Your task to perform on an android device: Do I have any events today? Image 0: 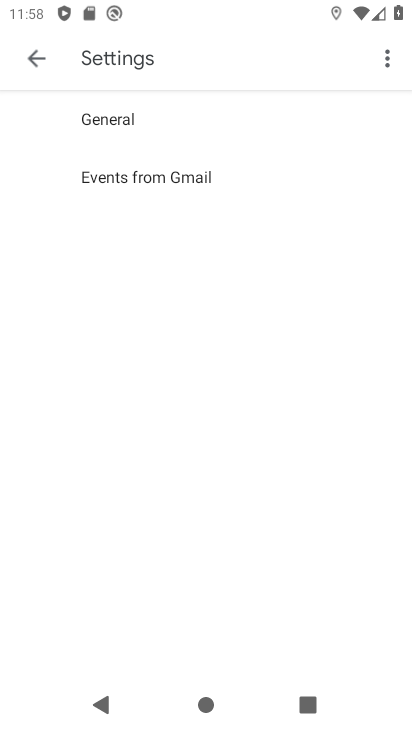
Step 0: press home button
Your task to perform on an android device: Do I have any events today? Image 1: 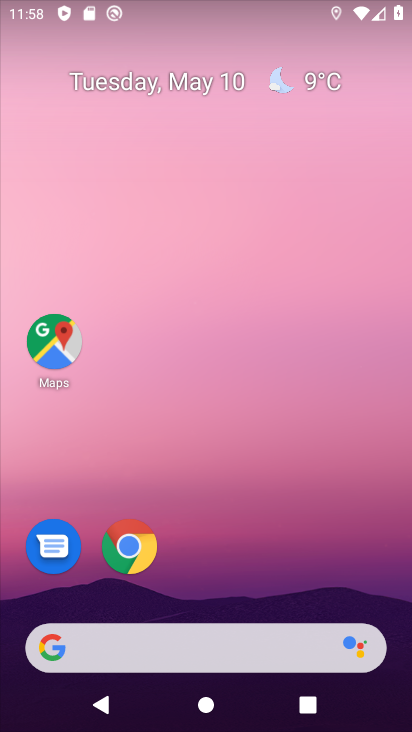
Step 1: drag from (138, 646) to (244, 74)
Your task to perform on an android device: Do I have any events today? Image 2: 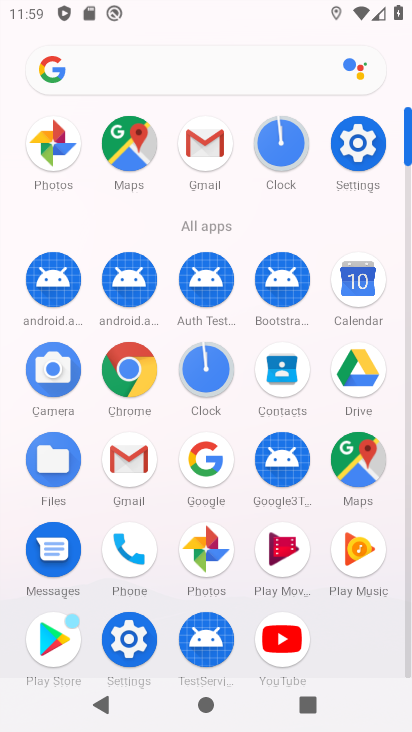
Step 2: click (359, 296)
Your task to perform on an android device: Do I have any events today? Image 3: 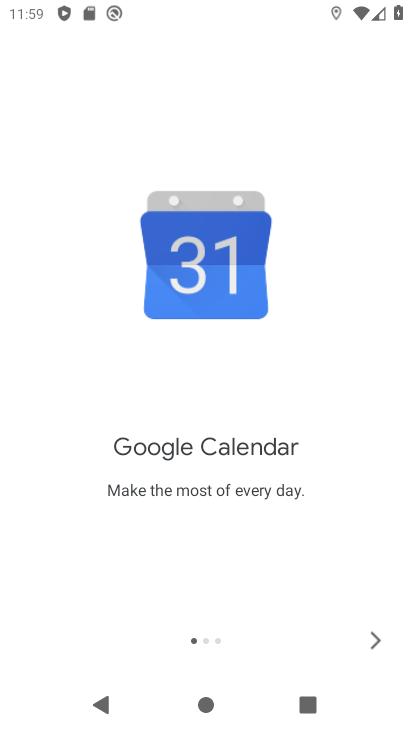
Step 3: click (376, 634)
Your task to perform on an android device: Do I have any events today? Image 4: 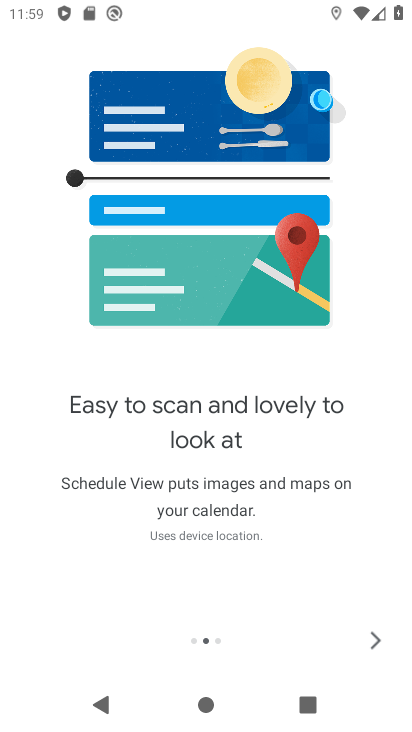
Step 4: click (376, 634)
Your task to perform on an android device: Do I have any events today? Image 5: 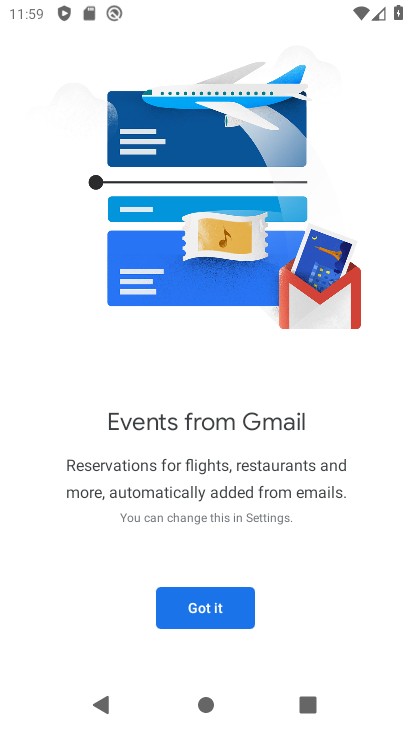
Step 5: click (221, 605)
Your task to perform on an android device: Do I have any events today? Image 6: 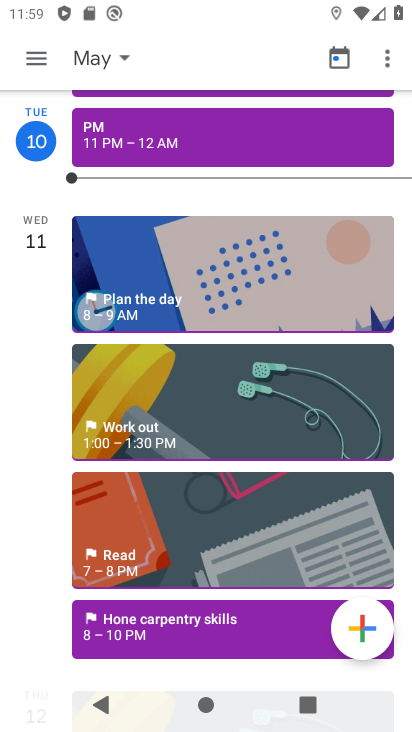
Step 6: click (134, 138)
Your task to perform on an android device: Do I have any events today? Image 7: 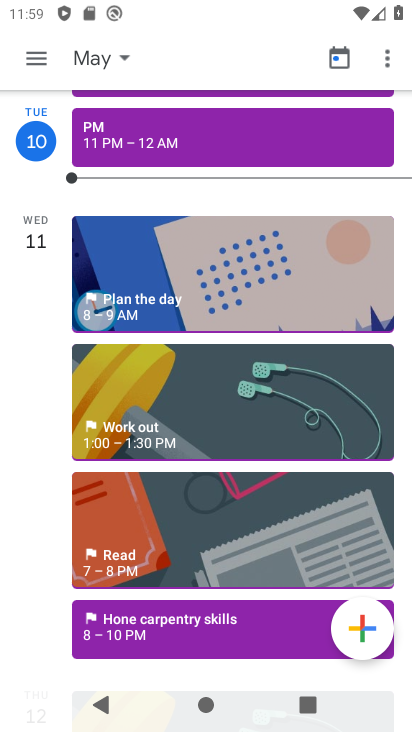
Step 7: click (136, 142)
Your task to perform on an android device: Do I have any events today? Image 8: 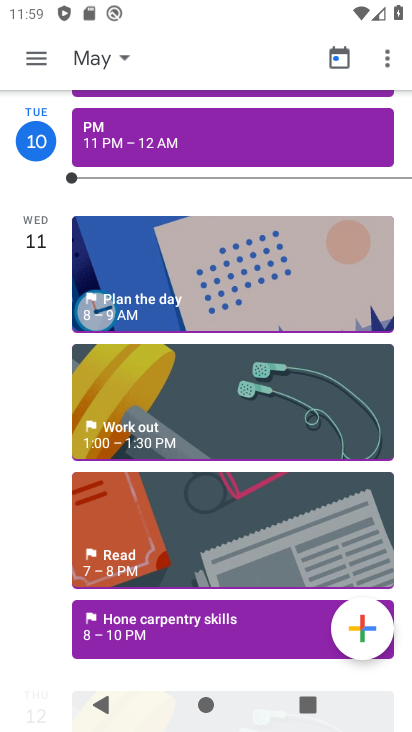
Step 8: click (169, 135)
Your task to perform on an android device: Do I have any events today? Image 9: 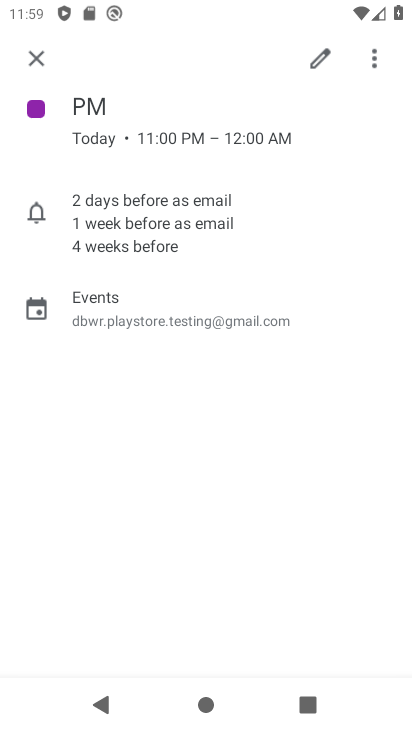
Step 9: task complete